Your task to perform on an android device: Open the stopwatch Image 0: 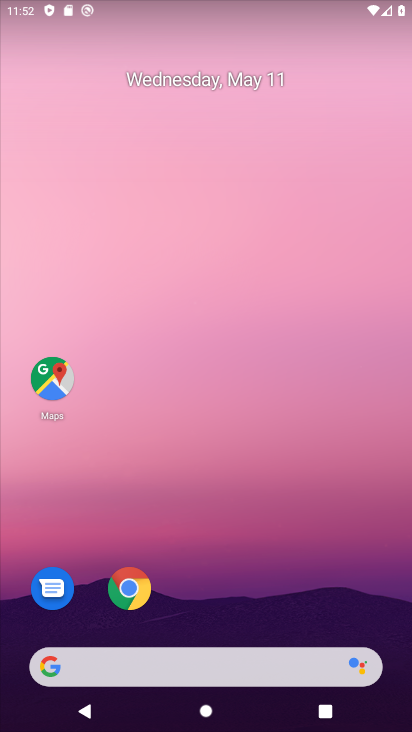
Step 0: drag from (223, 498) to (313, 163)
Your task to perform on an android device: Open the stopwatch Image 1: 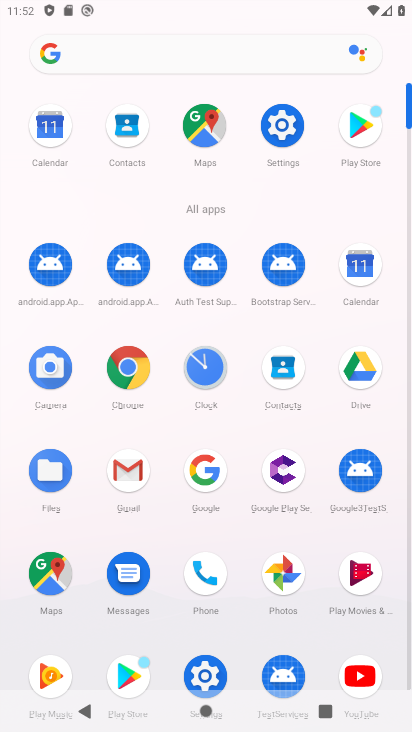
Step 1: click (214, 367)
Your task to perform on an android device: Open the stopwatch Image 2: 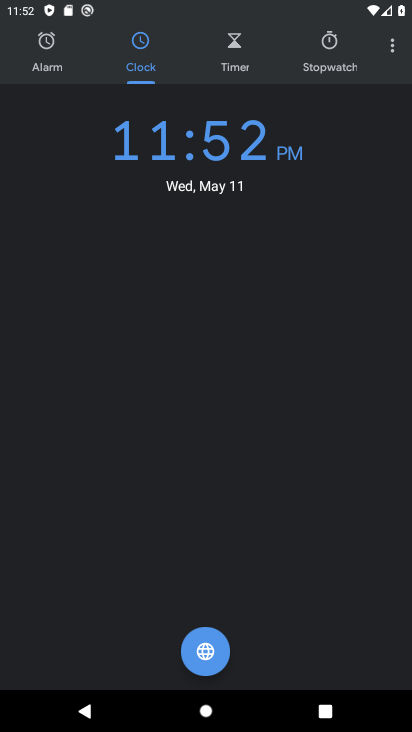
Step 2: click (333, 48)
Your task to perform on an android device: Open the stopwatch Image 3: 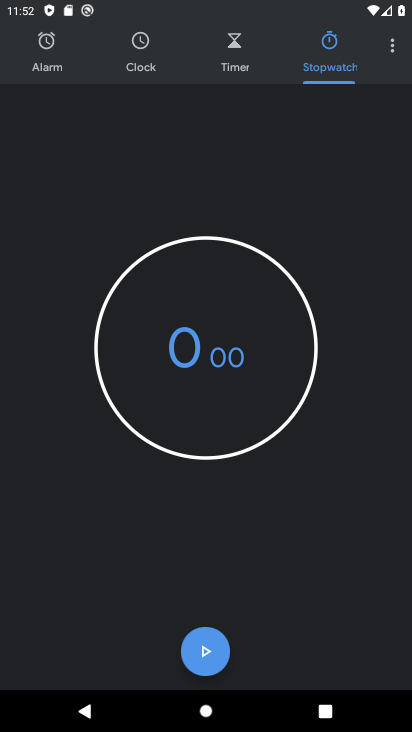
Step 3: click (204, 357)
Your task to perform on an android device: Open the stopwatch Image 4: 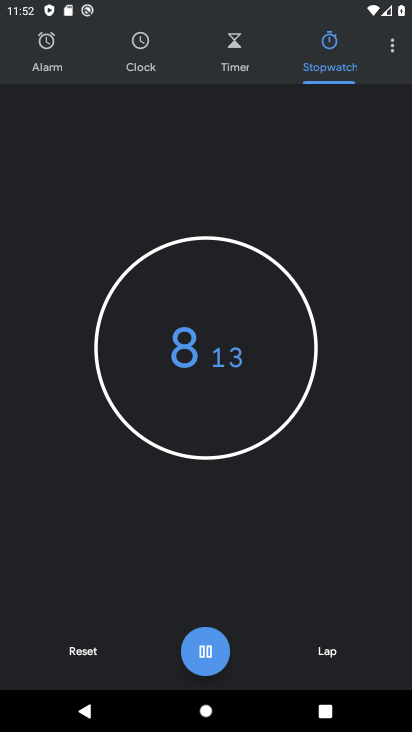
Step 4: click (200, 652)
Your task to perform on an android device: Open the stopwatch Image 5: 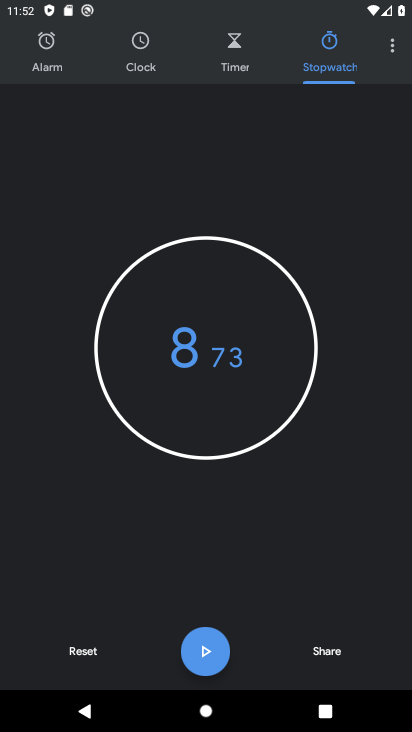
Step 5: task complete